Your task to perform on an android device: open wifi settings Image 0: 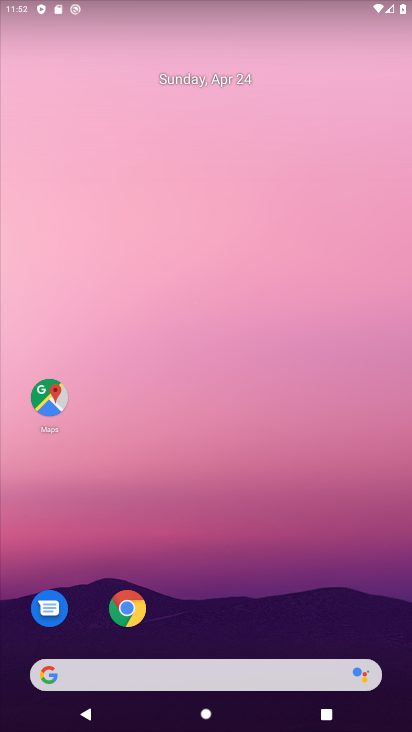
Step 0: drag from (235, 721) to (239, 118)
Your task to perform on an android device: open wifi settings Image 1: 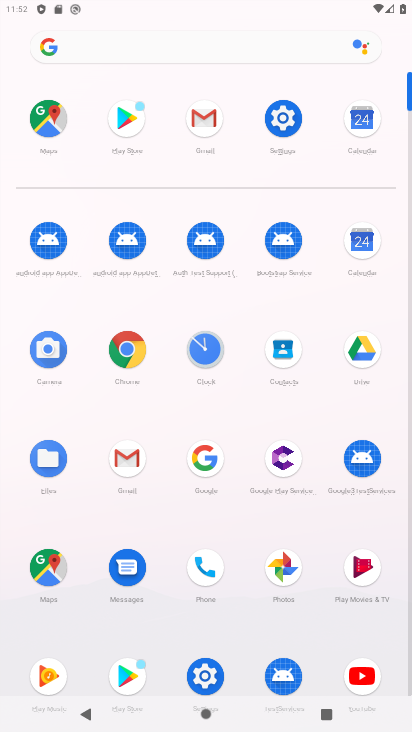
Step 1: click (282, 120)
Your task to perform on an android device: open wifi settings Image 2: 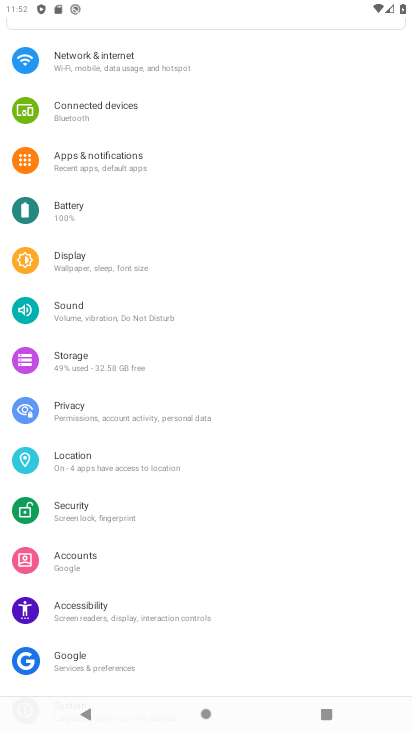
Step 2: drag from (157, 96) to (174, 473)
Your task to perform on an android device: open wifi settings Image 3: 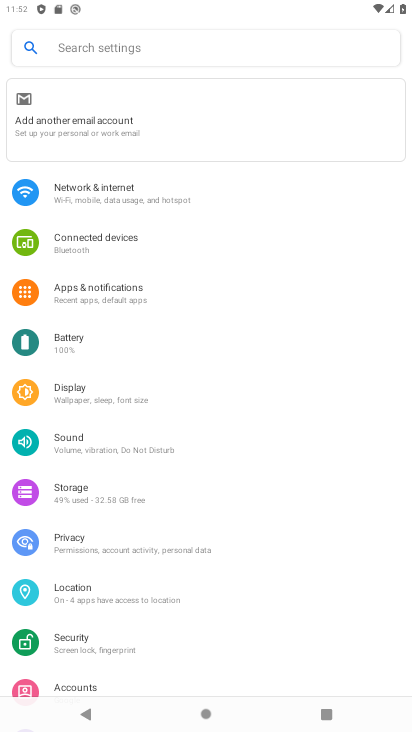
Step 3: click (86, 190)
Your task to perform on an android device: open wifi settings Image 4: 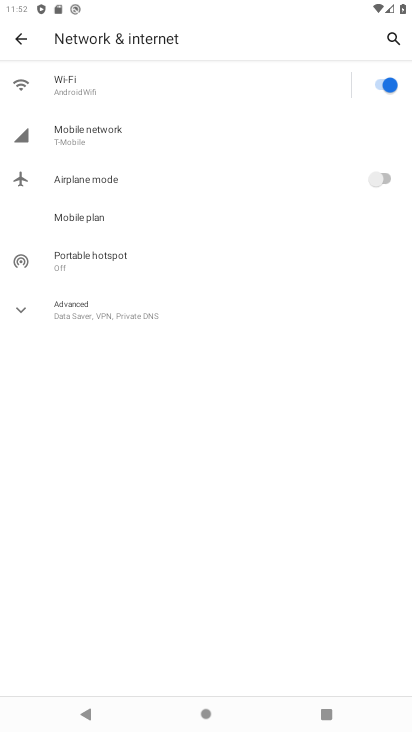
Step 4: click (70, 78)
Your task to perform on an android device: open wifi settings Image 5: 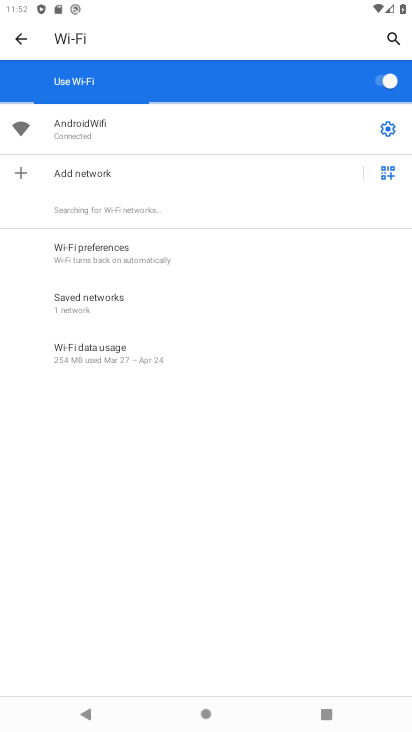
Step 5: task complete